Your task to perform on an android device: Show me productivity apps on the Play Store Image 0: 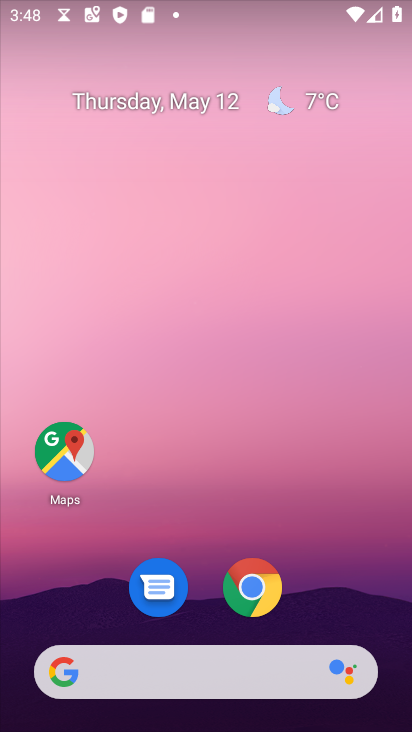
Step 0: drag from (333, 612) to (320, 135)
Your task to perform on an android device: Show me productivity apps on the Play Store Image 1: 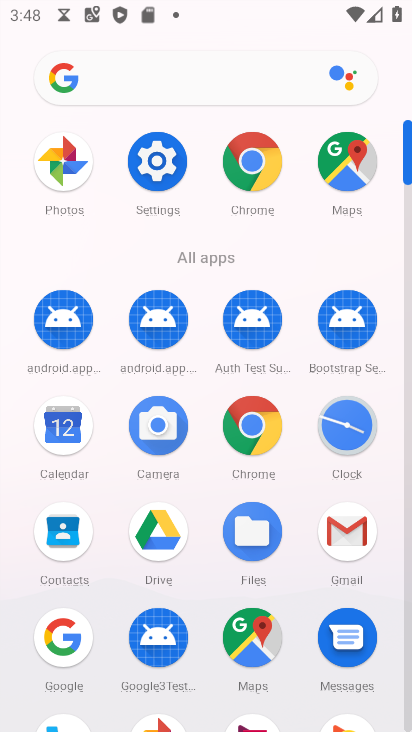
Step 1: drag from (188, 694) to (229, 275)
Your task to perform on an android device: Show me productivity apps on the Play Store Image 2: 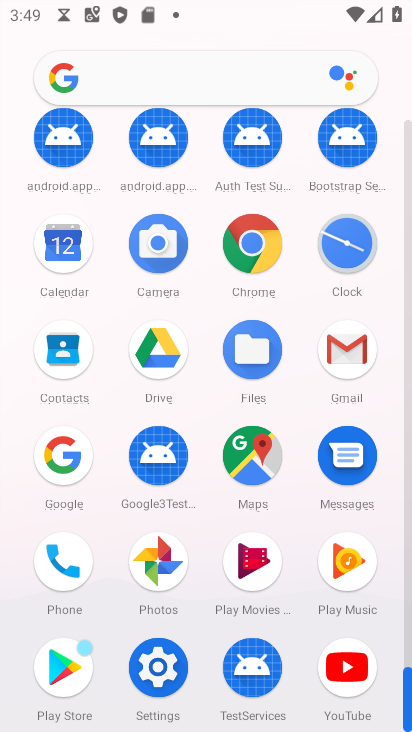
Step 2: click (75, 664)
Your task to perform on an android device: Show me productivity apps on the Play Store Image 3: 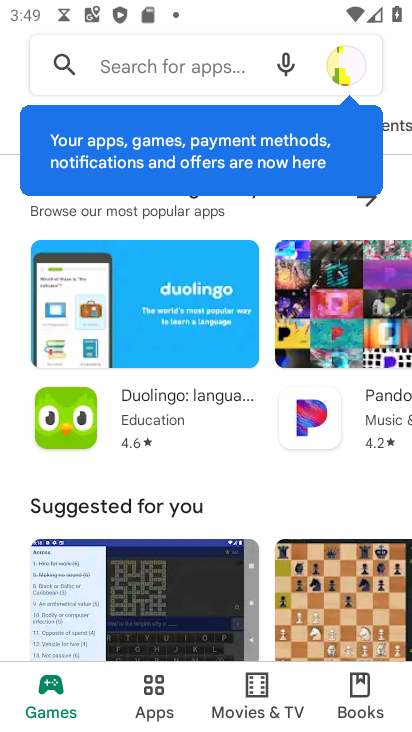
Step 3: click (155, 691)
Your task to perform on an android device: Show me productivity apps on the Play Store Image 4: 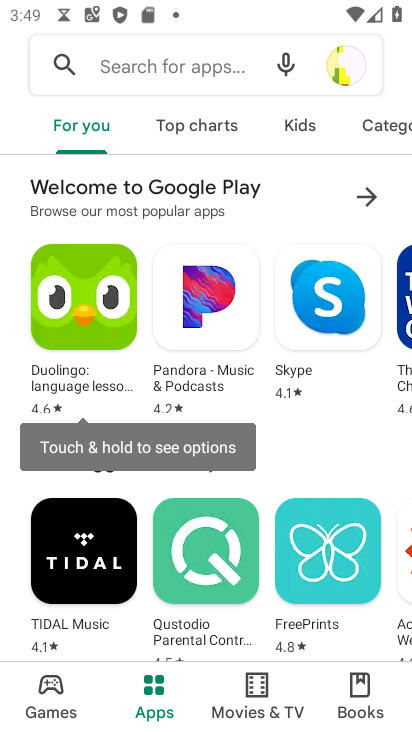
Step 4: click (375, 131)
Your task to perform on an android device: Show me productivity apps on the Play Store Image 5: 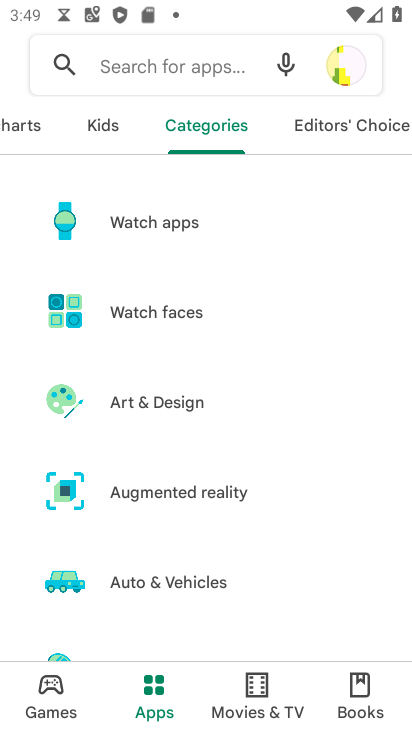
Step 5: drag from (175, 568) to (195, 252)
Your task to perform on an android device: Show me productivity apps on the Play Store Image 6: 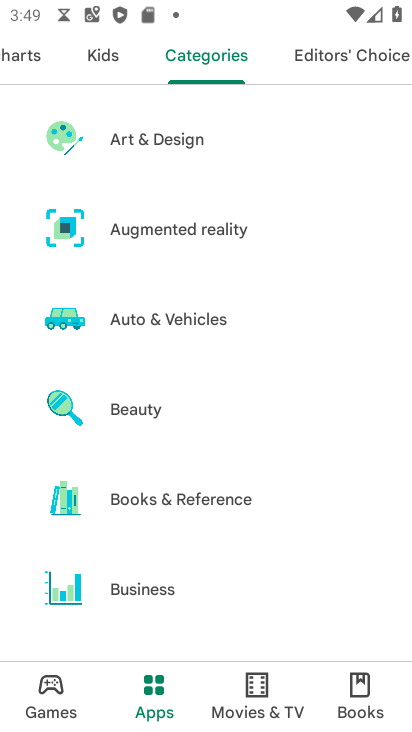
Step 6: drag from (195, 606) to (192, 259)
Your task to perform on an android device: Show me productivity apps on the Play Store Image 7: 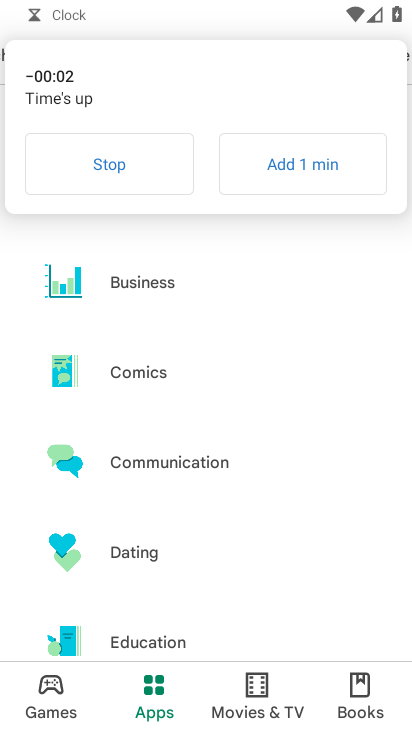
Step 7: drag from (173, 559) to (175, 274)
Your task to perform on an android device: Show me productivity apps on the Play Store Image 8: 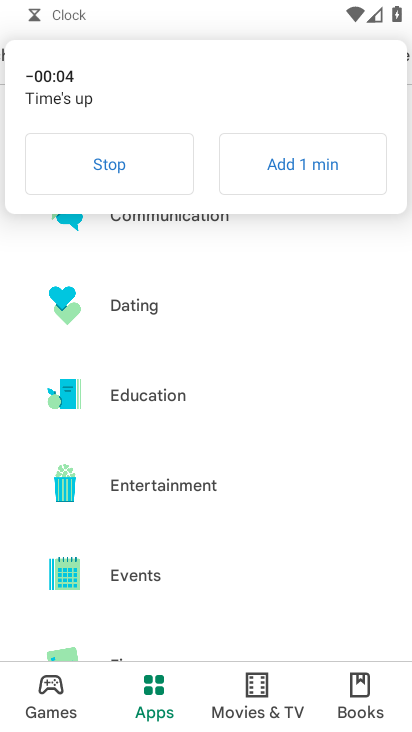
Step 8: drag from (185, 628) to (222, 279)
Your task to perform on an android device: Show me productivity apps on the Play Store Image 9: 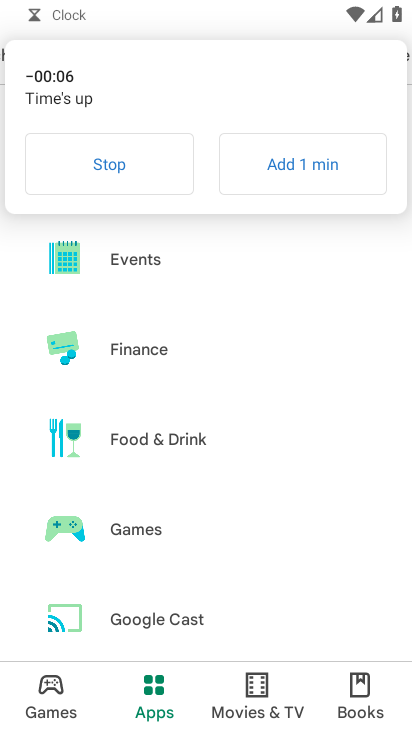
Step 9: drag from (238, 608) to (222, 268)
Your task to perform on an android device: Show me productivity apps on the Play Store Image 10: 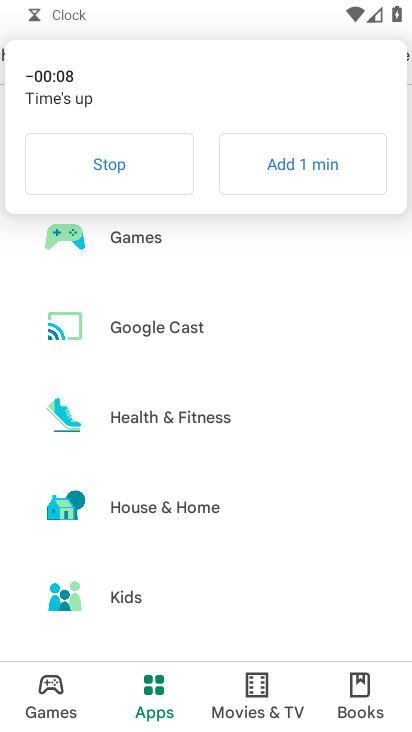
Step 10: click (137, 178)
Your task to perform on an android device: Show me productivity apps on the Play Store Image 11: 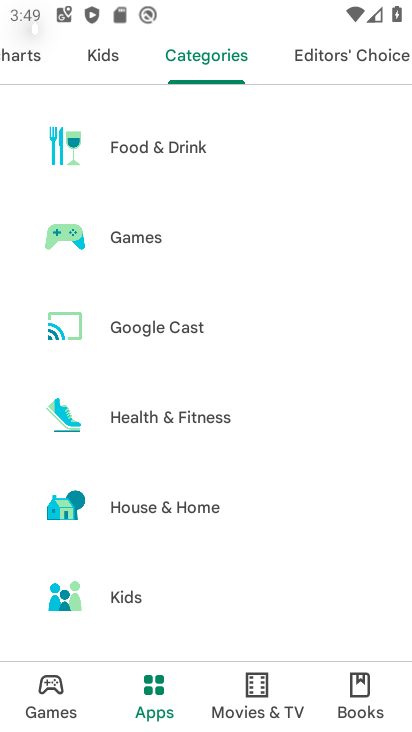
Step 11: drag from (173, 523) to (191, 162)
Your task to perform on an android device: Show me productivity apps on the Play Store Image 12: 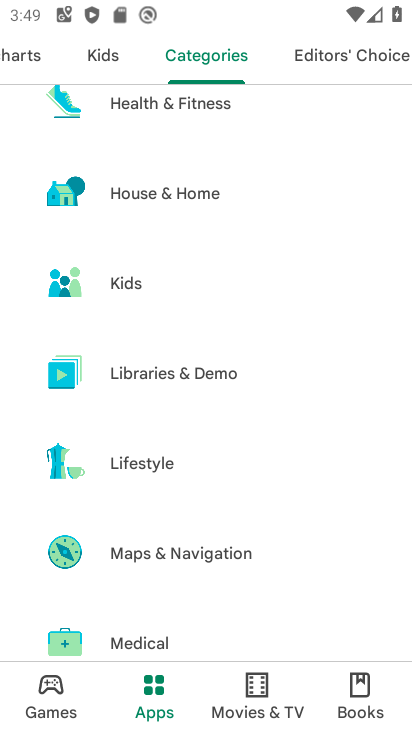
Step 12: drag from (169, 620) to (186, 197)
Your task to perform on an android device: Show me productivity apps on the Play Store Image 13: 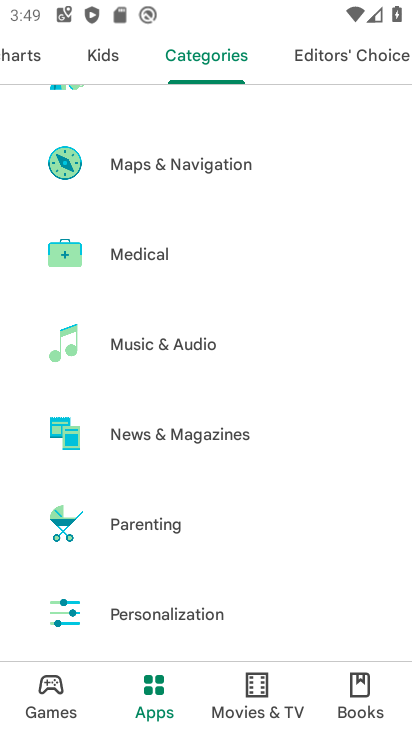
Step 13: drag from (208, 615) to (206, 243)
Your task to perform on an android device: Show me productivity apps on the Play Store Image 14: 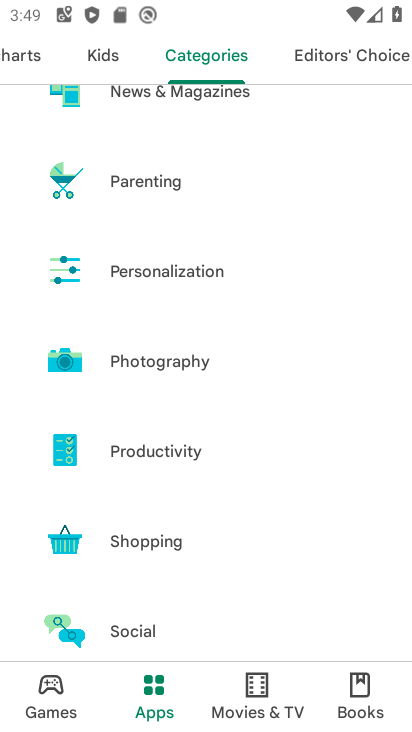
Step 14: click (171, 449)
Your task to perform on an android device: Show me productivity apps on the Play Store Image 15: 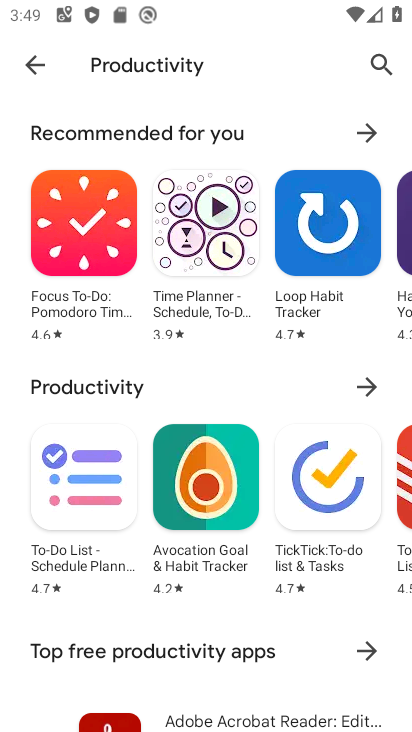
Step 15: task complete